Your task to perform on an android device: Go to internet settings Image 0: 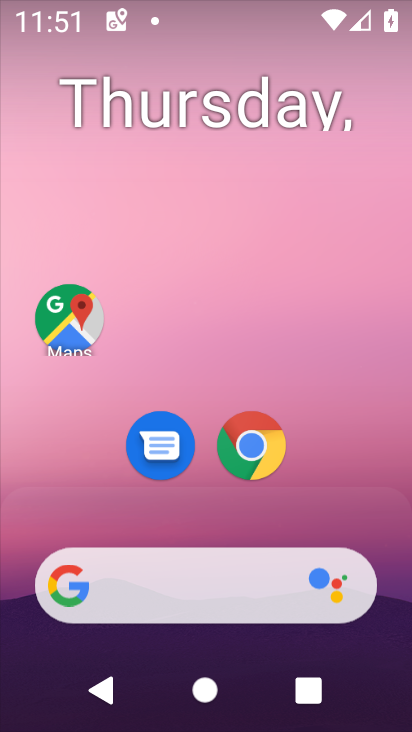
Step 0: drag from (337, 566) to (315, 139)
Your task to perform on an android device: Go to internet settings Image 1: 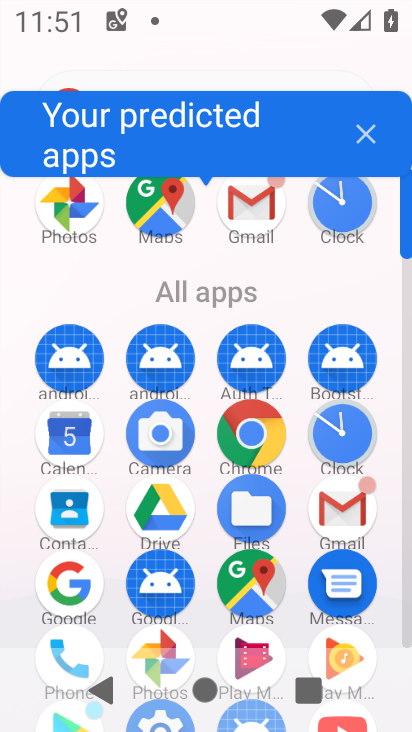
Step 1: drag from (297, 488) to (301, 198)
Your task to perform on an android device: Go to internet settings Image 2: 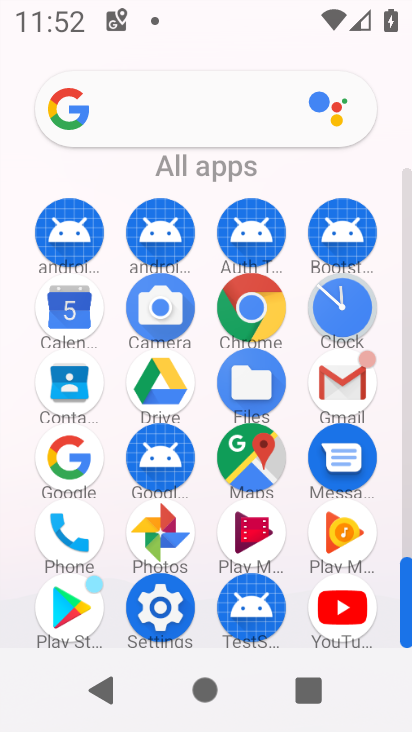
Step 2: click (172, 621)
Your task to perform on an android device: Go to internet settings Image 3: 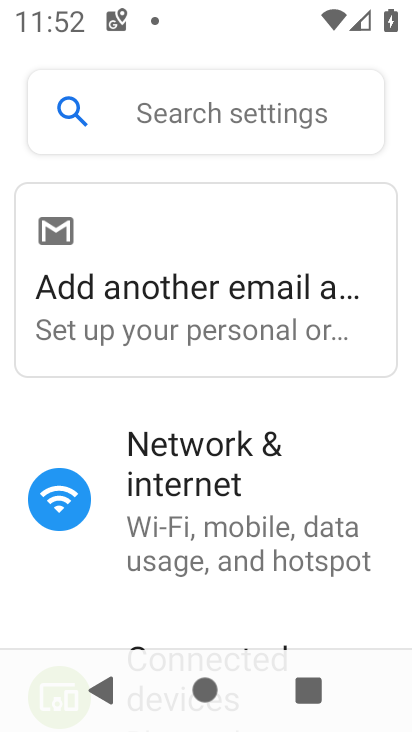
Step 3: drag from (224, 508) to (192, 222)
Your task to perform on an android device: Go to internet settings Image 4: 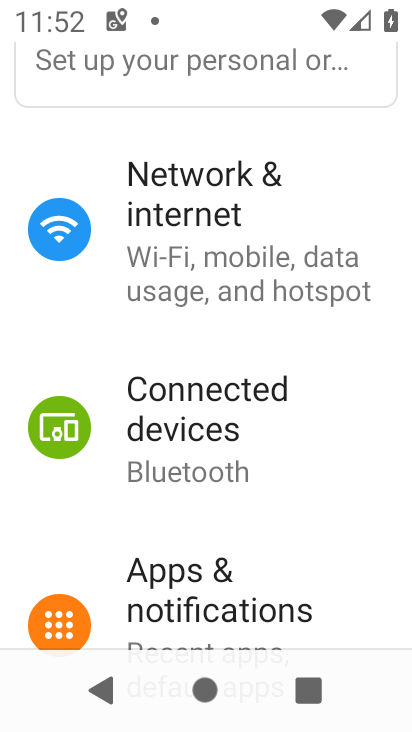
Step 4: click (192, 222)
Your task to perform on an android device: Go to internet settings Image 5: 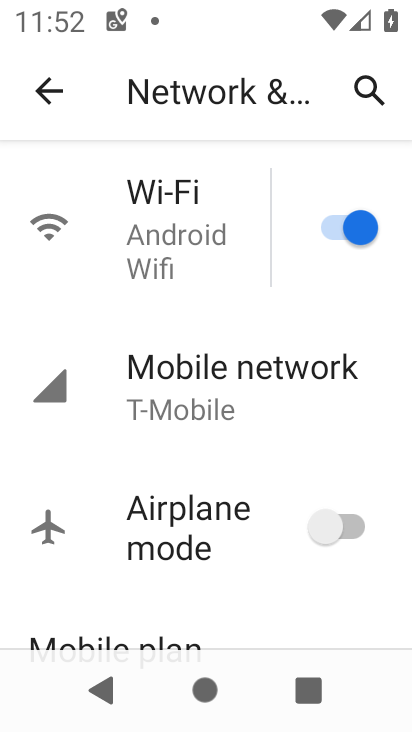
Step 5: task complete